Your task to perform on an android device: Open Google Maps Image 0: 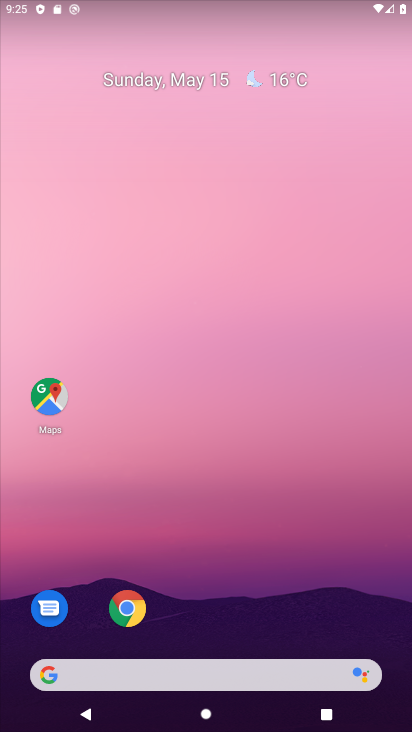
Step 0: drag from (232, 616) to (127, 60)
Your task to perform on an android device: Open Google Maps Image 1: 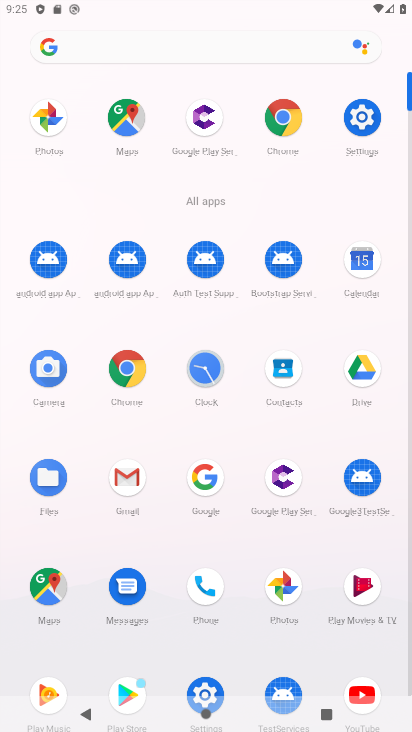
Step 1: click (48, 587)
Your task to perform on an android device: Open Google Maps Image 2: 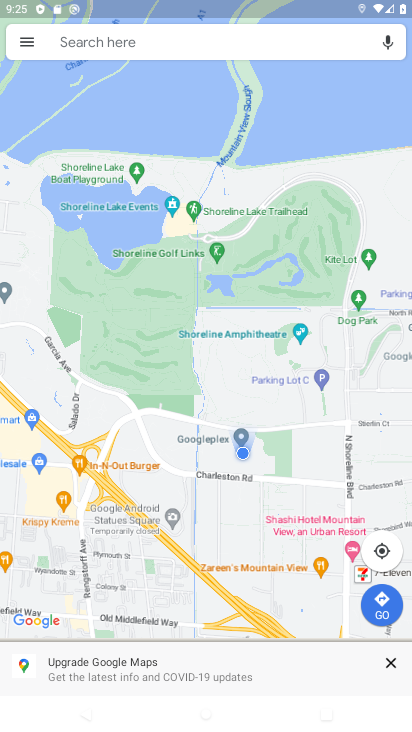
Step 2: click (51, 587)
Your task to perform on an android device: Open Google Maps Image 3: 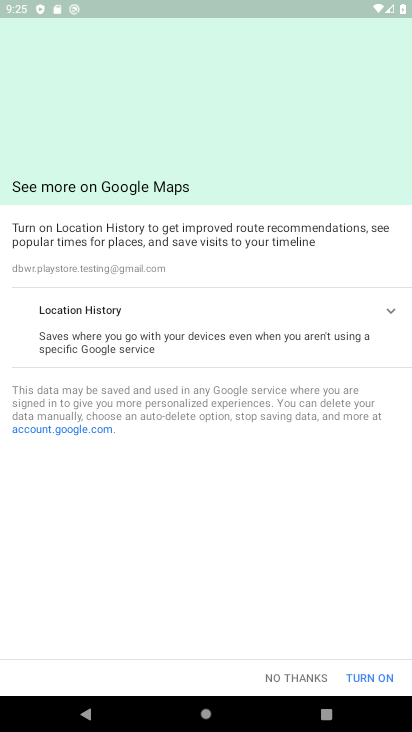
Step 3: task complete